Your task to perform on an android device: move an email to a new category in the gmail app Image 0: 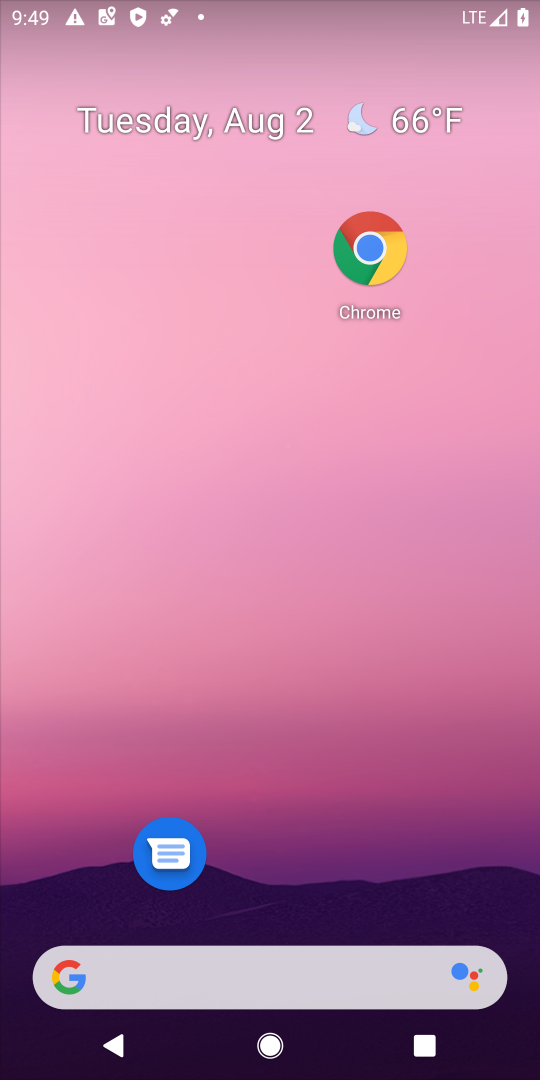
Step 0: drag from (303, 940) to (416, 3)
Your task to perform on an android device: move an email to a new category in the gmail app Image 1: 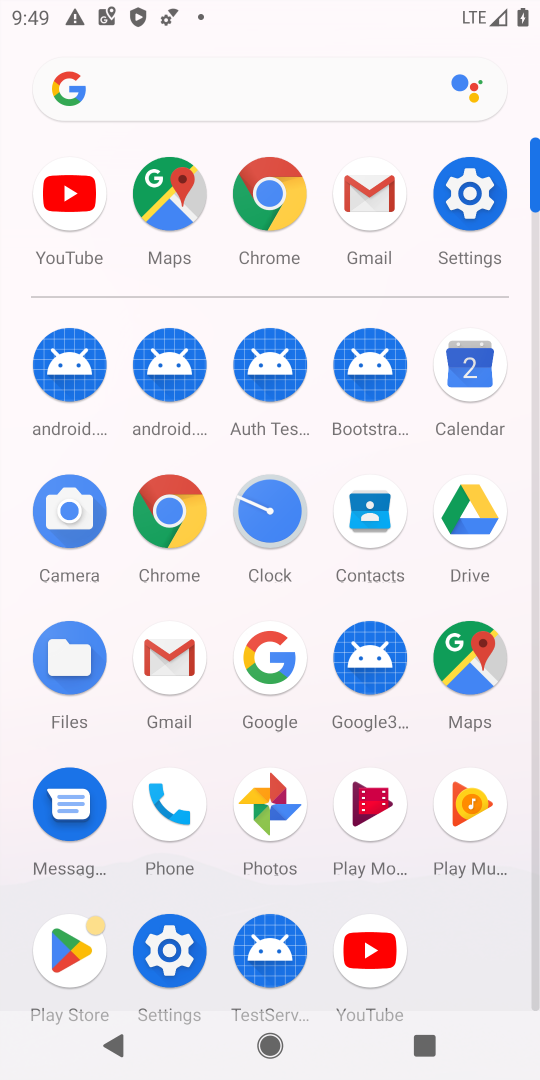
Step 1: click (162, 663)
Your task to perform on an android device: move an email to a new category in the gmail app Image 2: 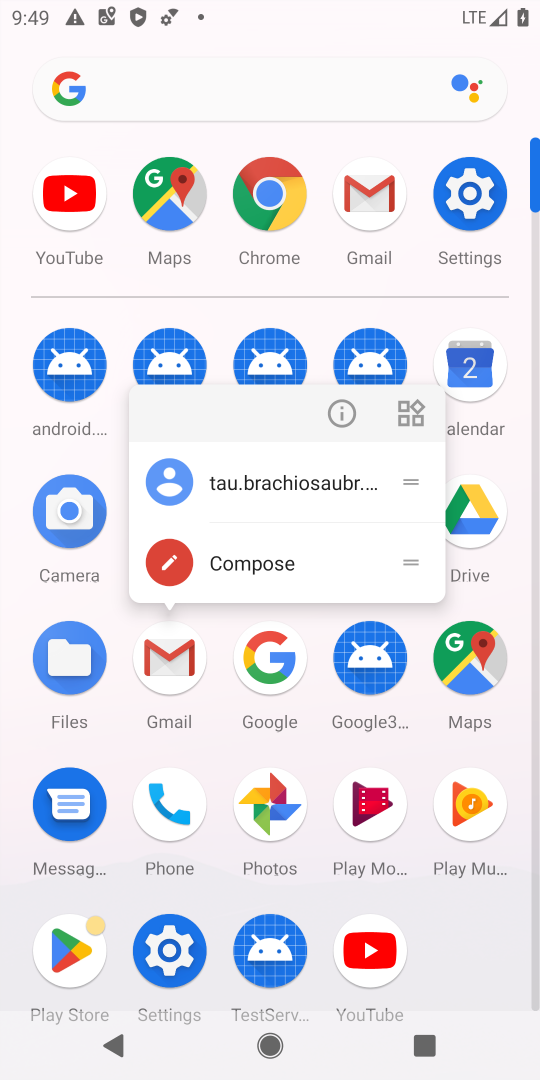
Step 2: click (182, 653)
Your task to perform on an android device: move an email to a new category in the gmail app Image 3: 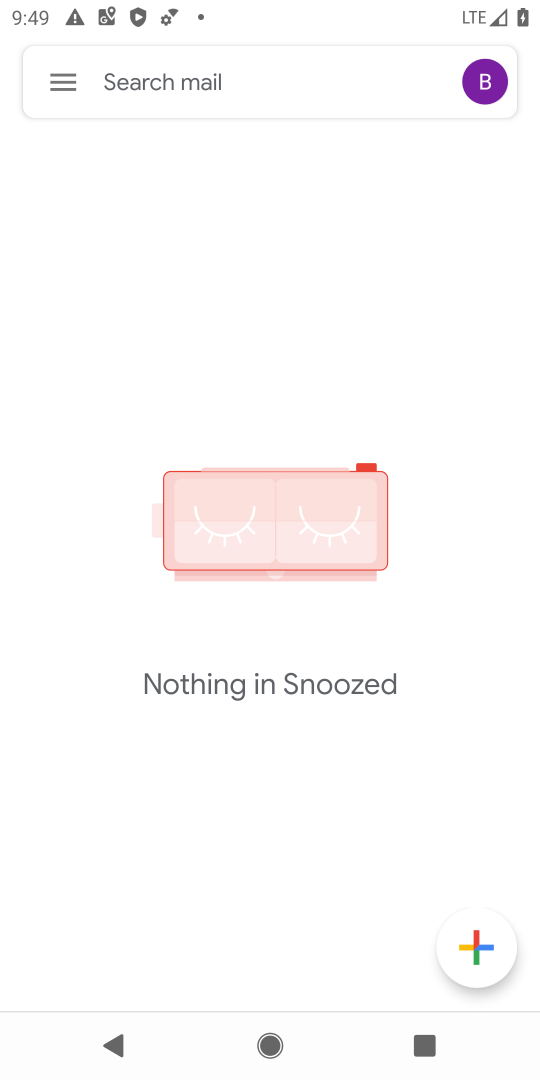
Step 3: click (44, 82)
Your task to perform on an android device: move an email to a new category in the gmail app Image 4: 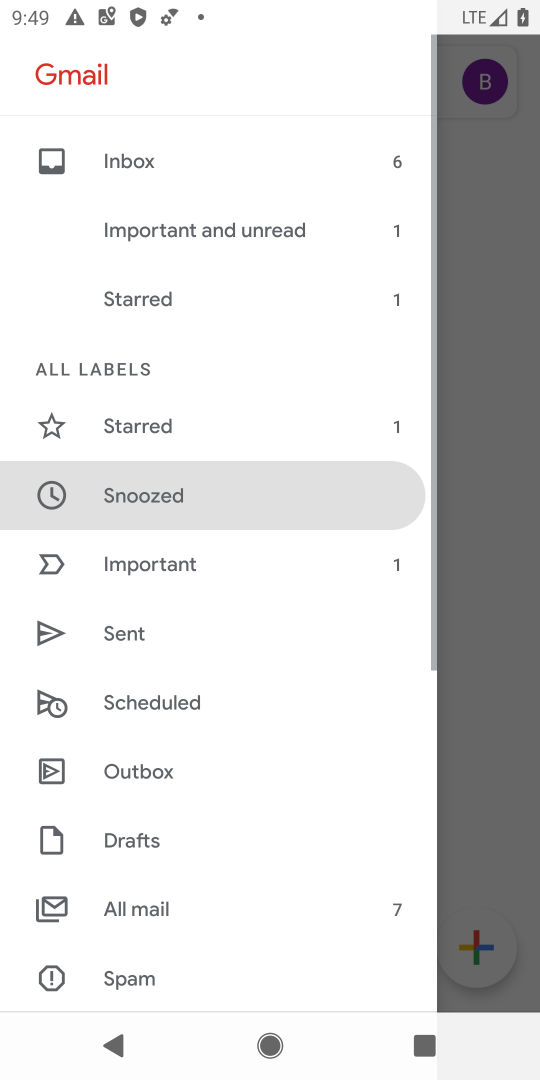
Step 4: drag from (249, 834) to (339, 105)
Your task to perform on an android device: move an email to a new category in the gmail app Image 5: 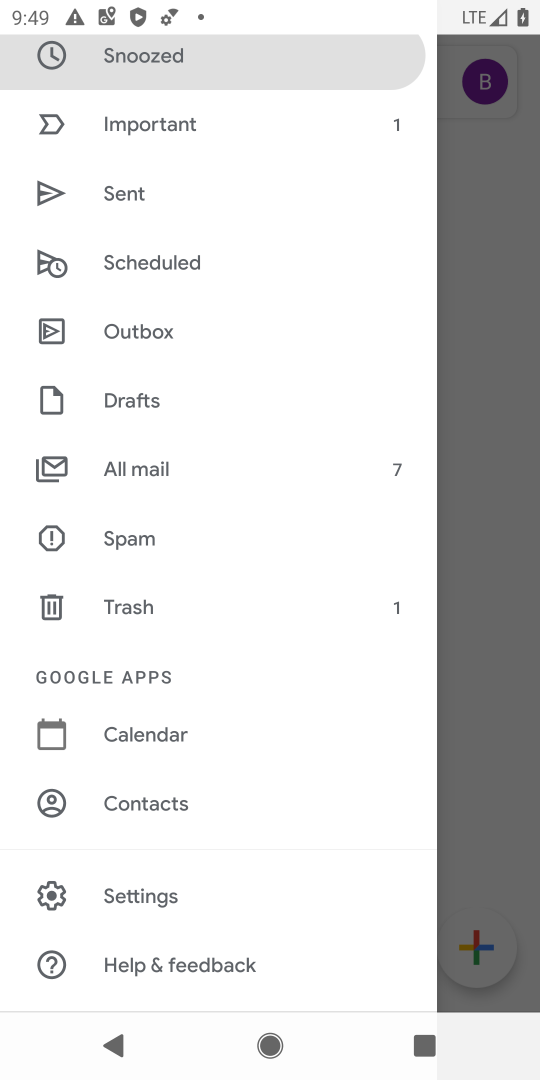
Step 5: drag from (219, 122) to (207, 898)
Your task to perform on an android device: move an email to a new category in the gmail app Image 6: 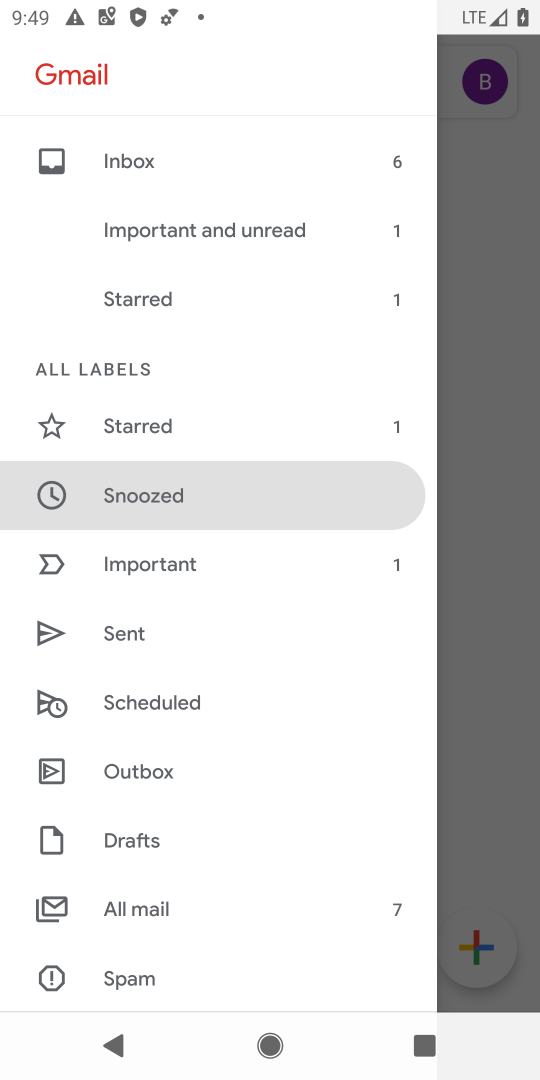
Step 6: click (173, 161)
Your task to perform on an android device: move an email to a new category in the gmail app Image 7: 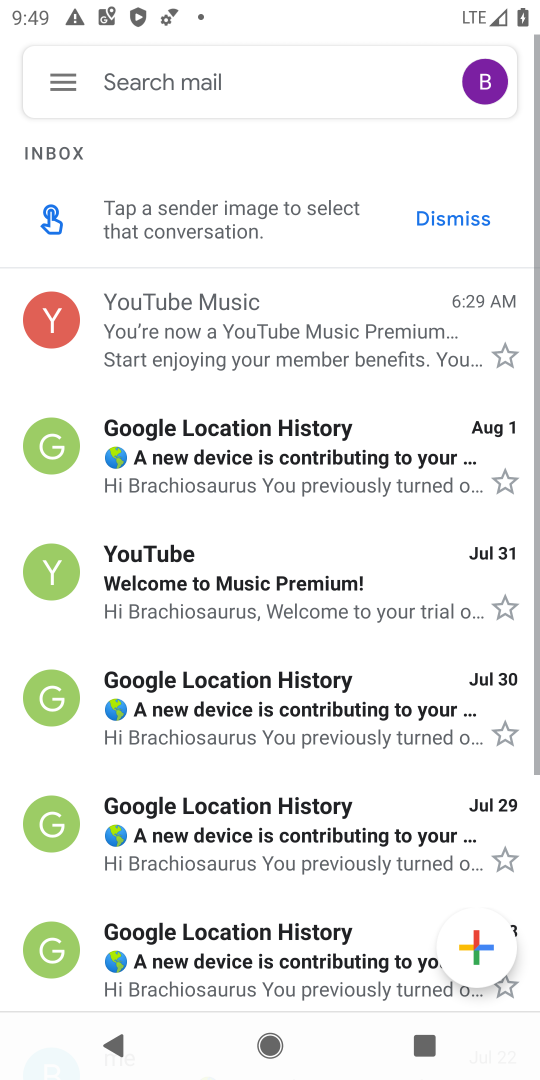
Step 7: click (294, 321)
Your task to perform on an android device: move an email to a new category in the gmail app Image 8: 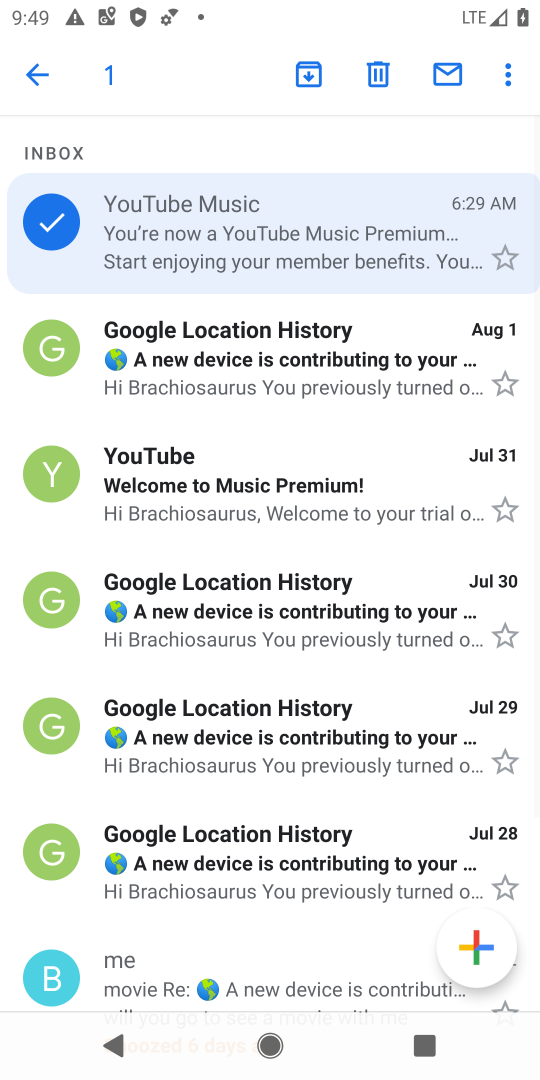
Step 8: click (511, 83)
Your task to perform on an android device: move an email to a new category in the gmail app Image 9: 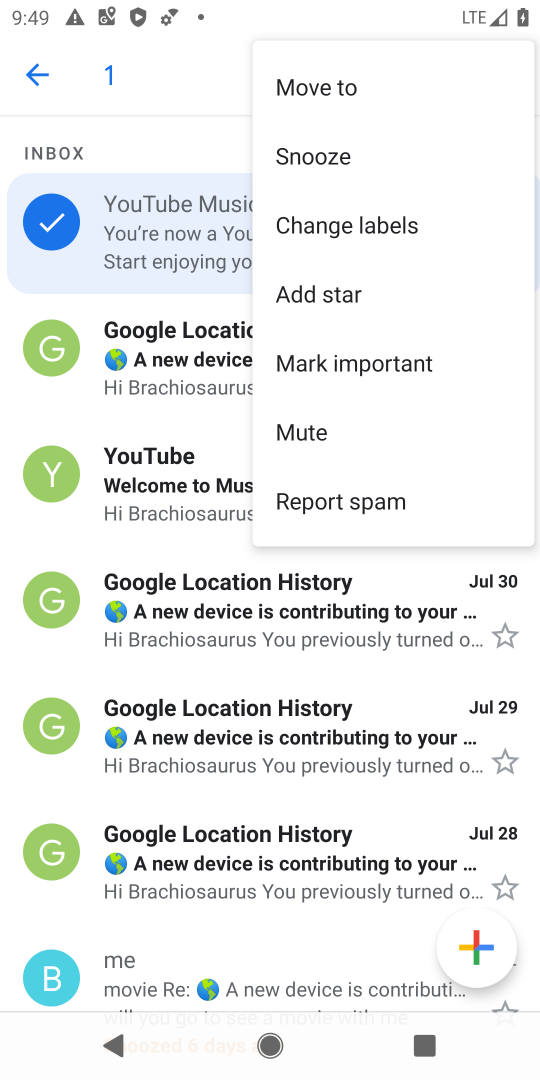
Step 9: click (340, 90)
Your task to perform on an android device: move an email to a new category in the gmail app Image 10: 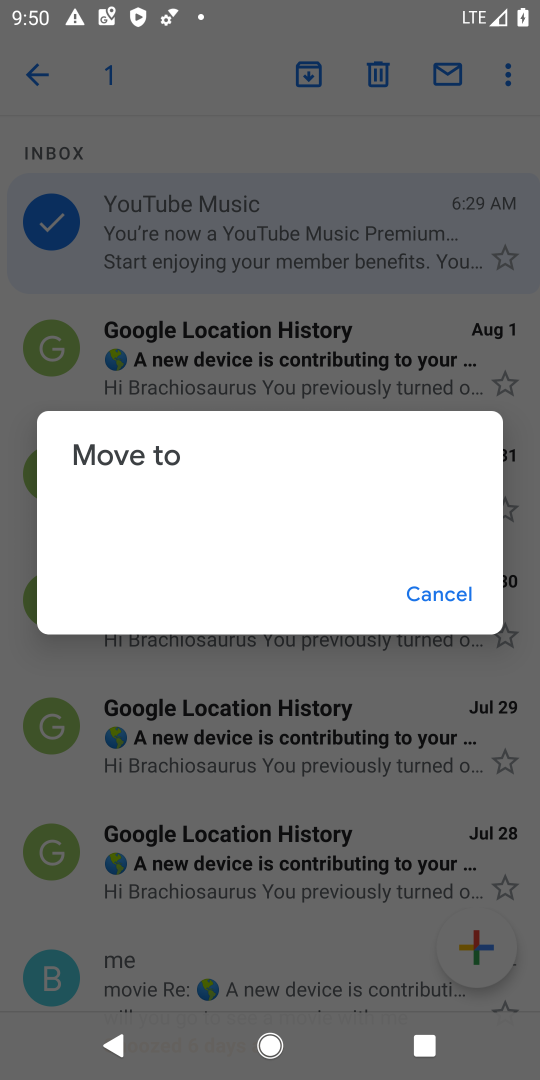
Step 10: task complete